Your task to perform on an android device: Open settings Image 0: 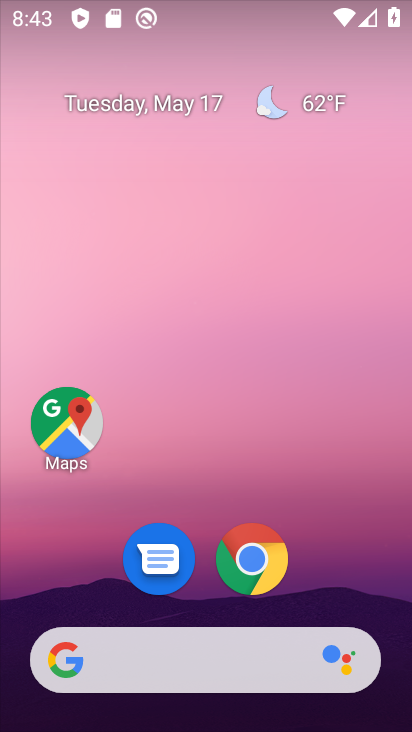
Step 0: drag from (173, 663) to (160, 64)
Your task to perform on an android device: Open settings Image 1: 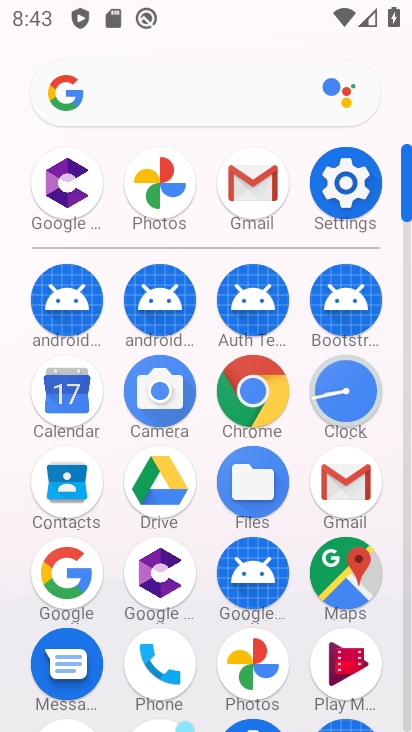
Step 1: click (339, 168)
Your task to perform on an android device: Open settings Image 2: 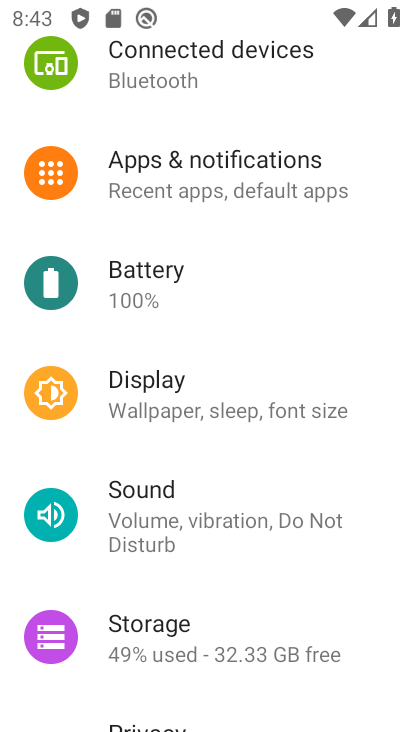
Step 2: task complete